Your task to perform on an android device: Go to eBay Image 0: 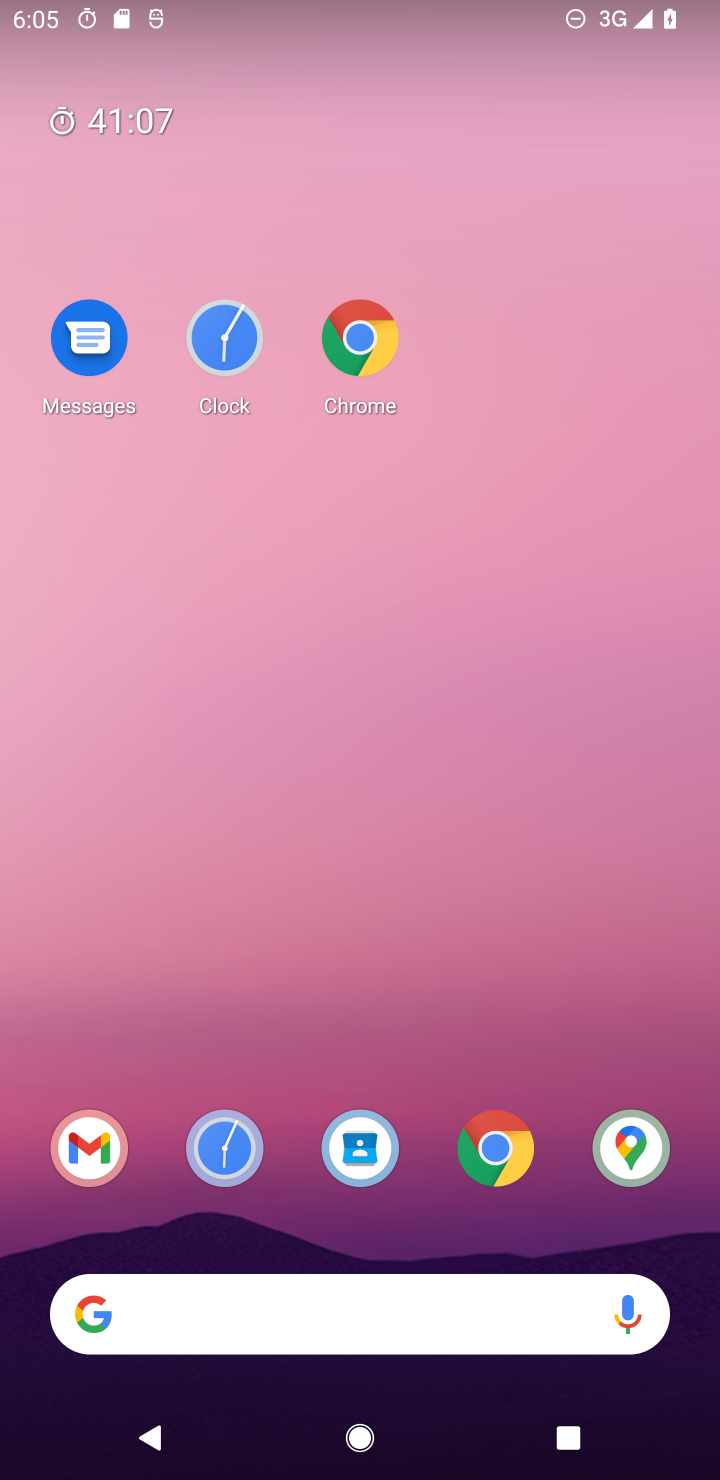
Step 0: drag from (309, 1189) to (422, 150)
Your task to perform on an android device: Go to eBay Image 1: 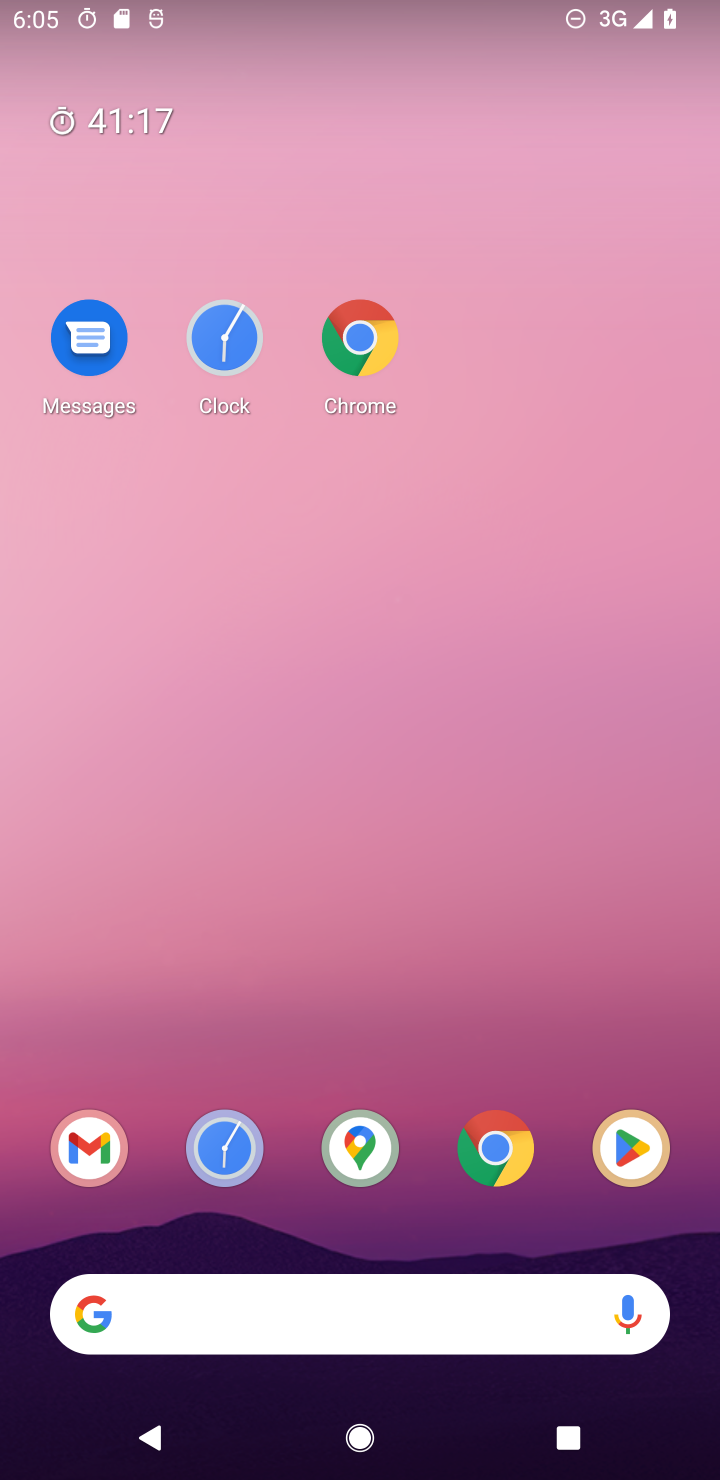
Step 1: drag from (335, 1234) to (332, 290)
Your task to perform on an android device: Go to eBay Image 2: 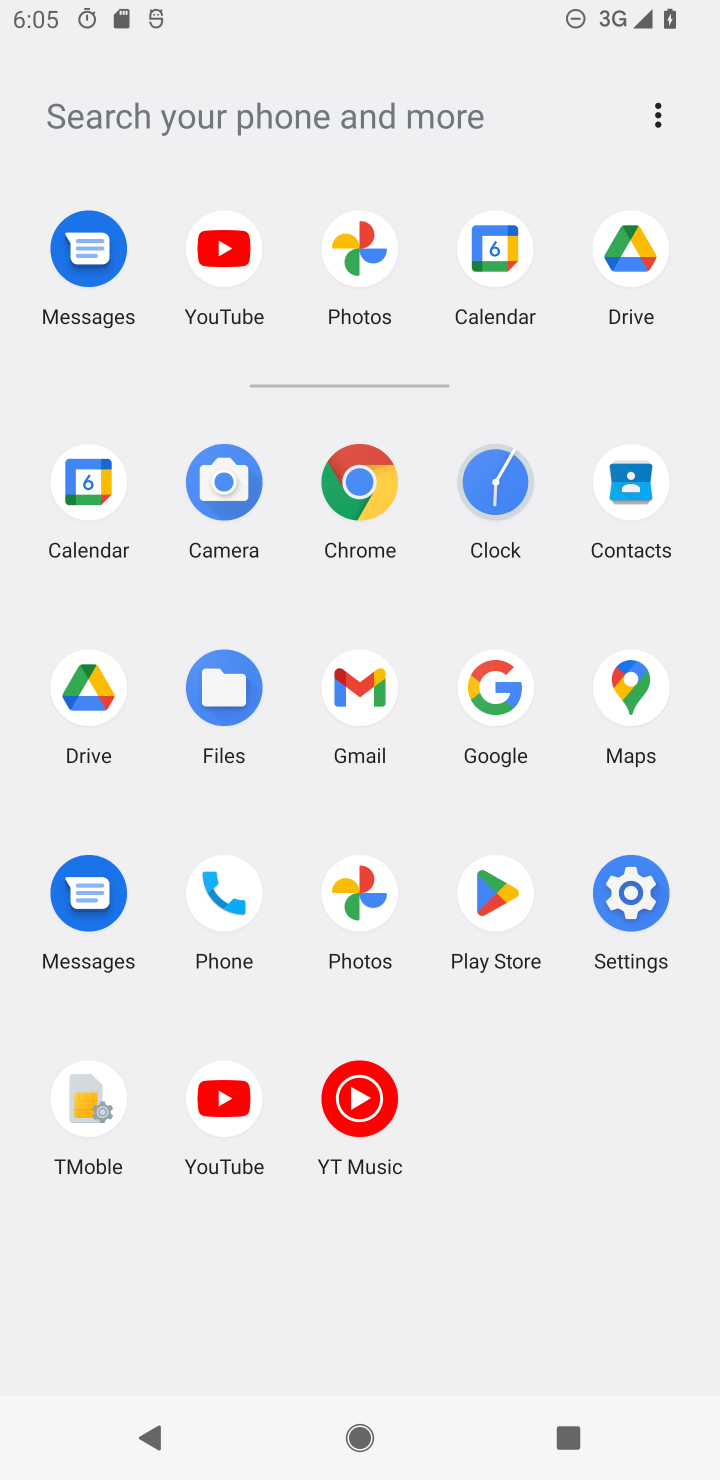
Step 2: click (125, 130)
Your task to perform on an android device: Go to eBay Image 3: 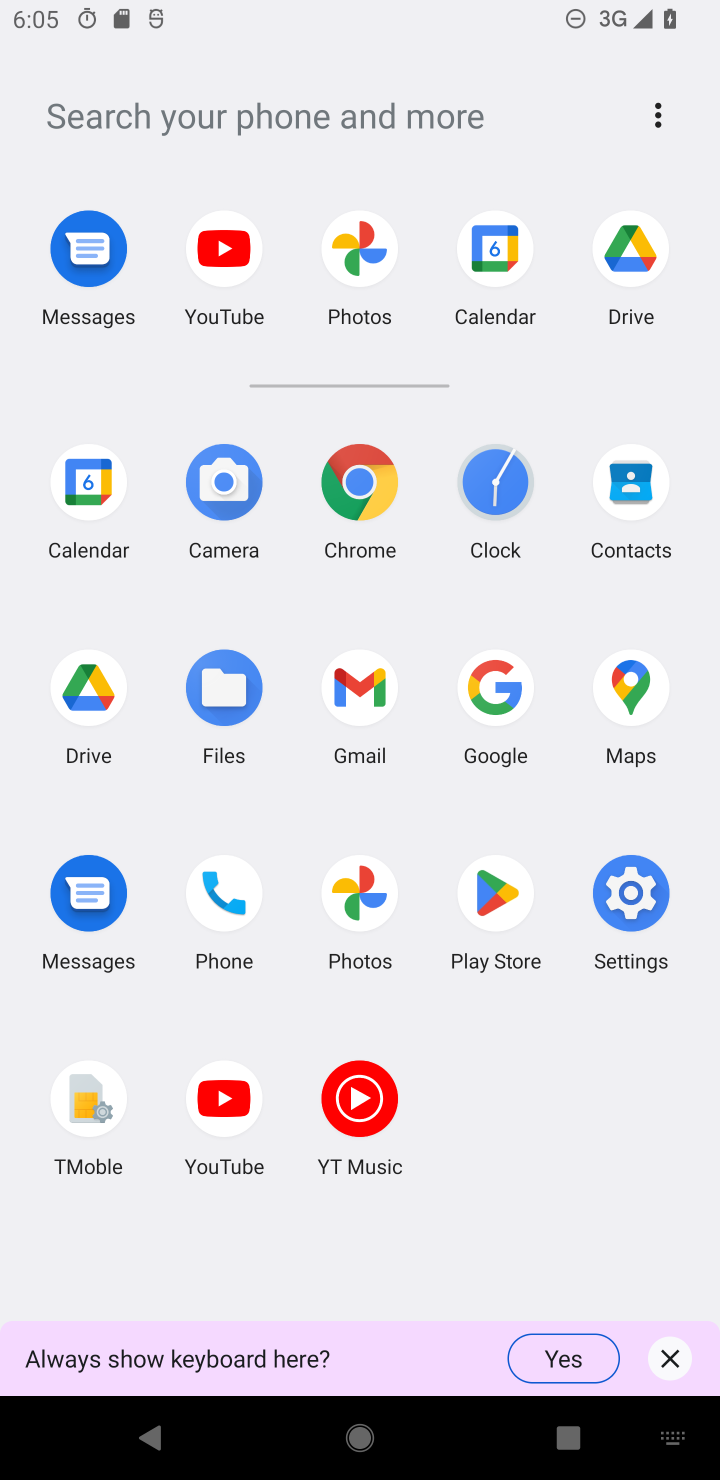
Step 3: type "eBay"
Your task to perform on an android device: Go to eBay Image 4: 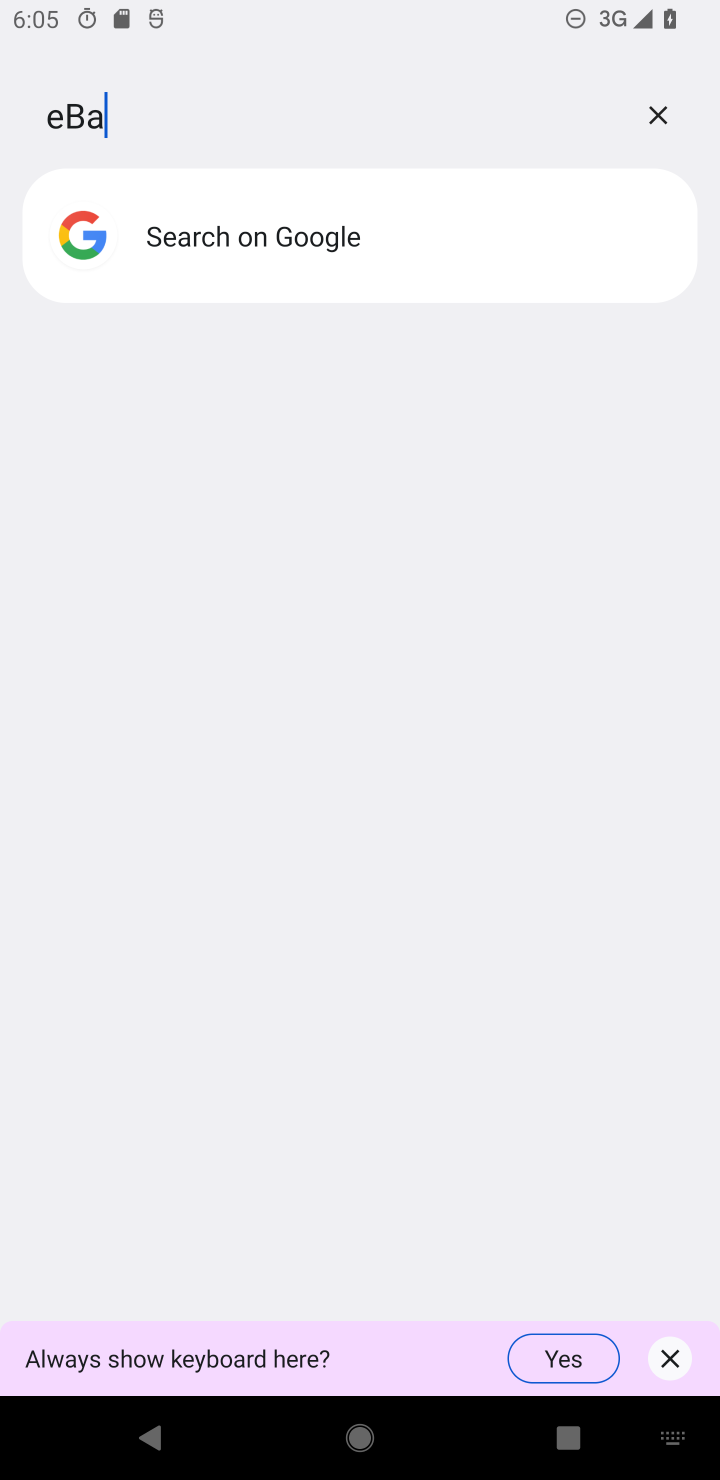
Step 4: type ""
Your task to perform on an android device: Go to eBay Image 5: 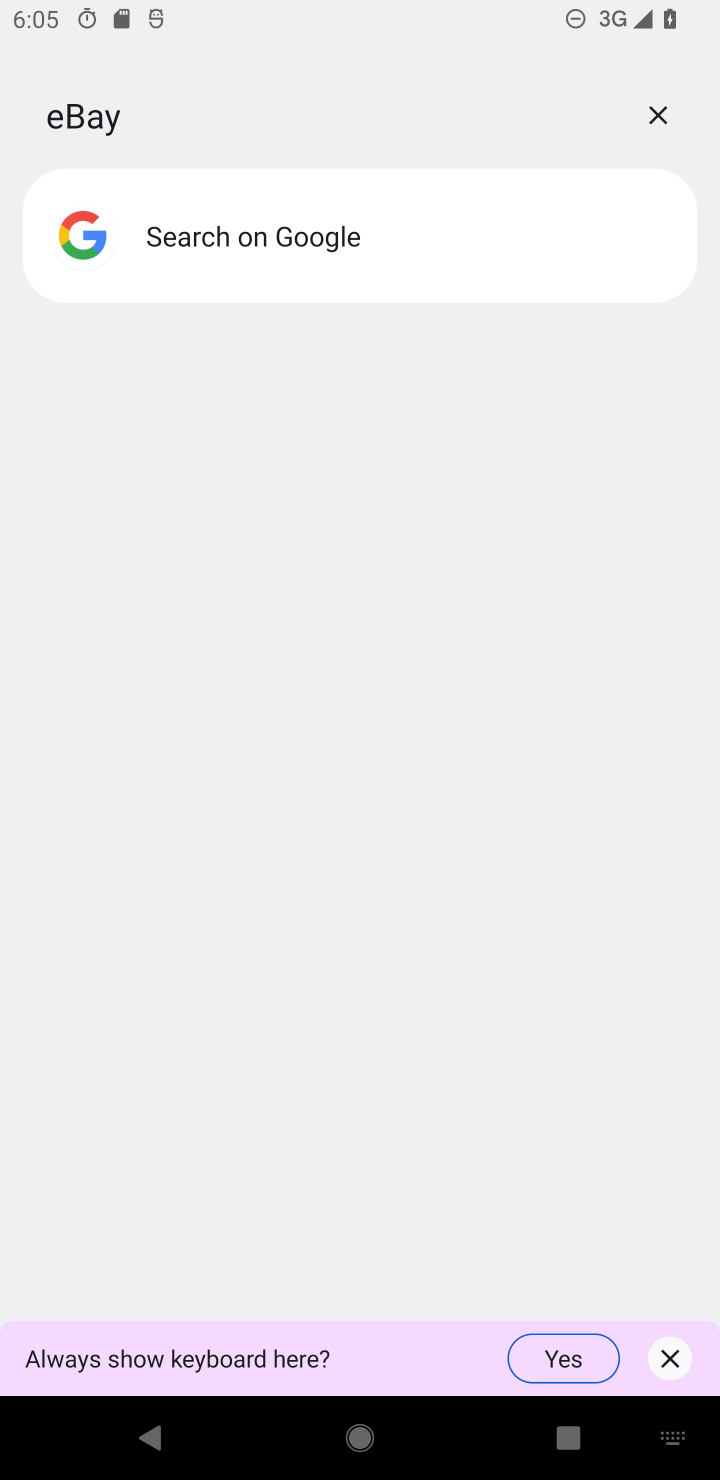
Step 5: click (239, 220)
Your task to perform on an android device: Go to eBay Image 6: 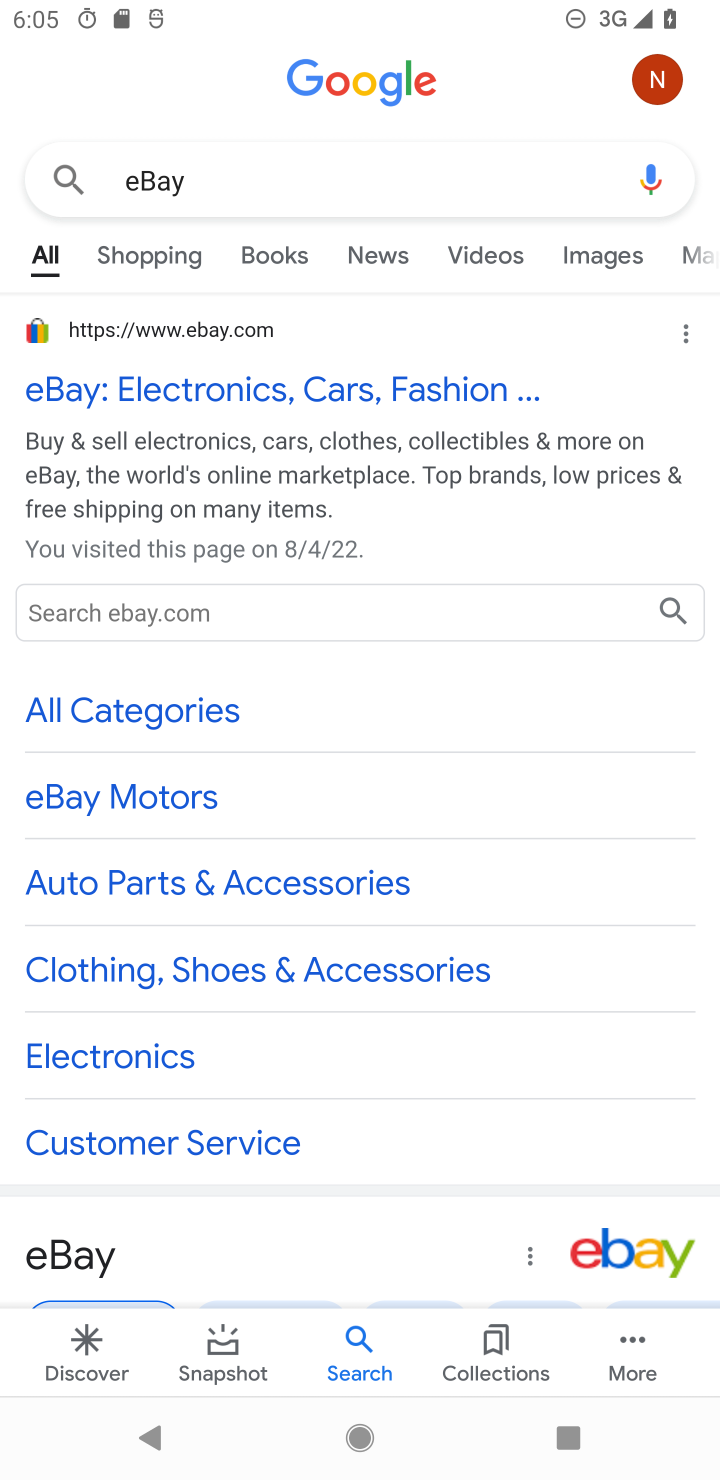
Step 6: click (151, 365)
Your task to perform on an android device: Go to eBay Image 7: 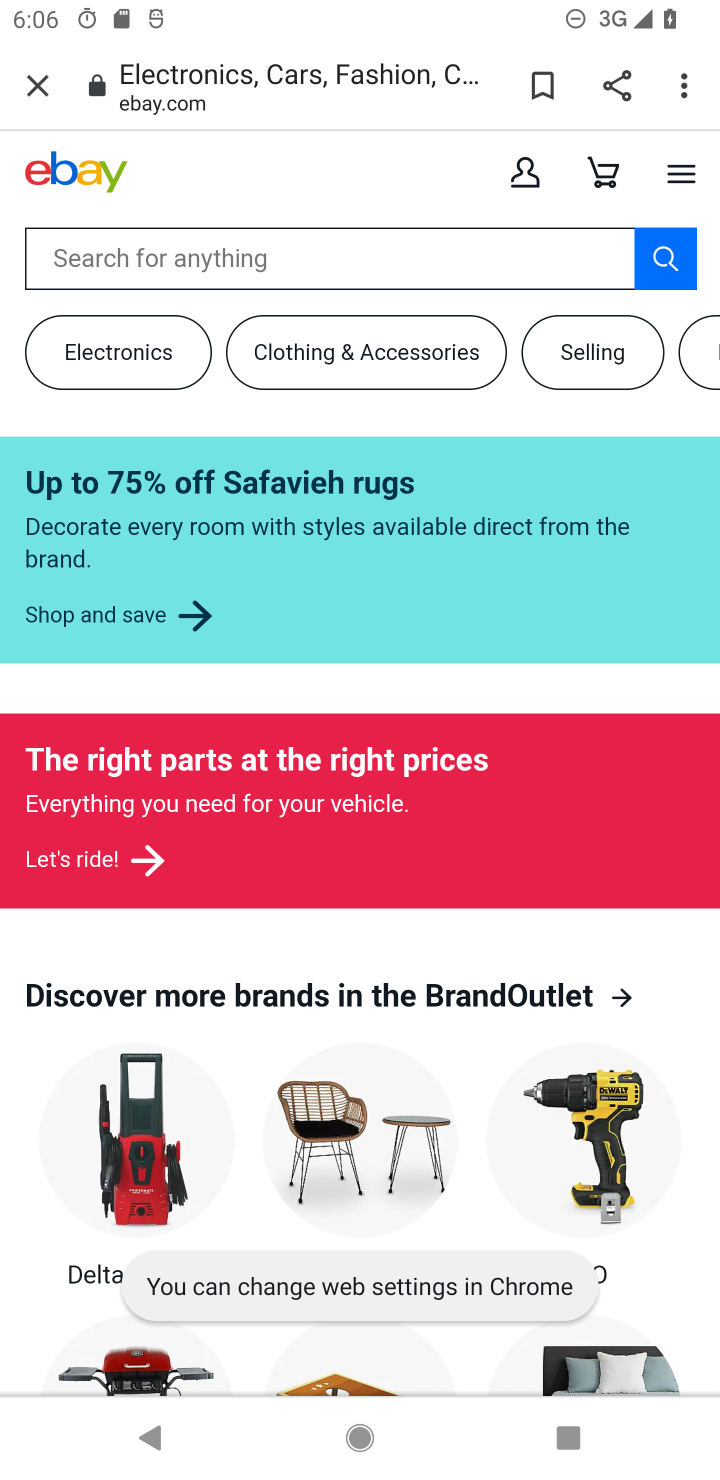
Step 7: task complete